Your task to perform on an android device: Open Google Chrome and open the bookmarks view Image 0: 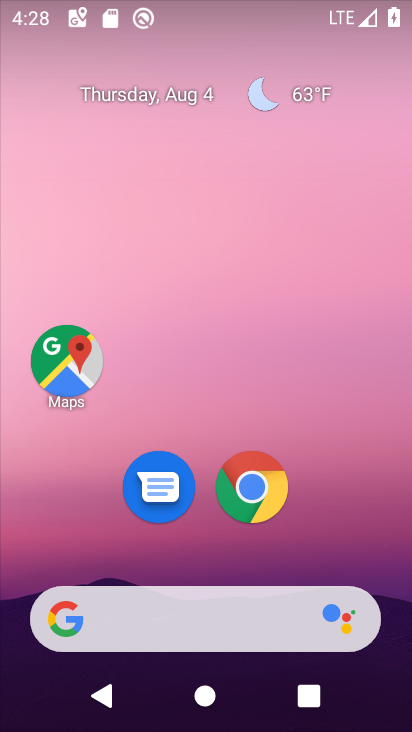
Step 0: click (201, 612)
Your task to perform on an android device: Open Google Chrome and open the bookmarks view Image 1: 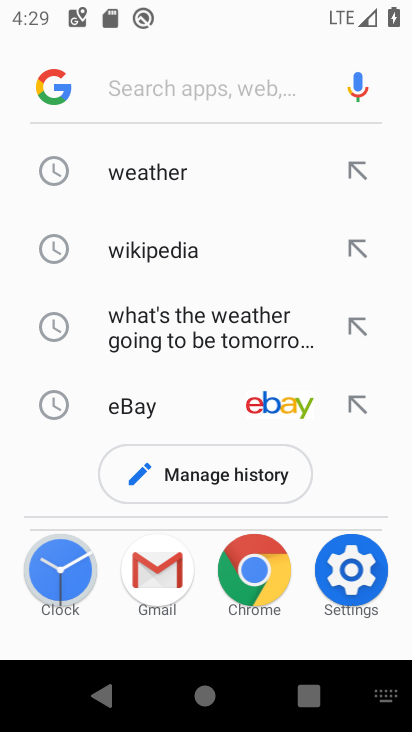
Step 1: click (144, 167)
Your task to perform on an android device: Open Google Chrome and open the bookmarks view Image 2: 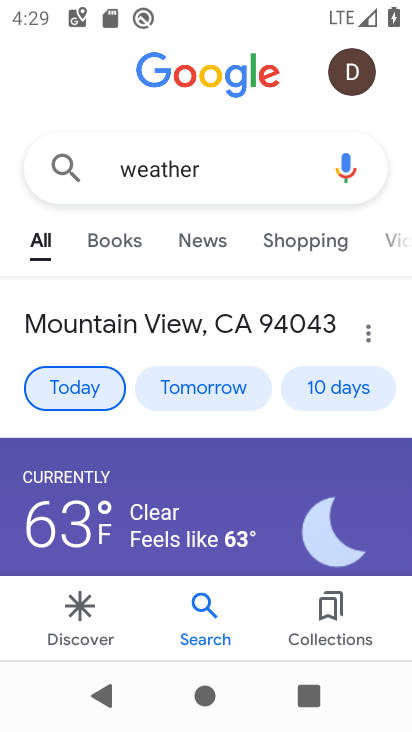
Step 2: press back button
Your task to perform on an android device: Open Google Chrome and open the bookmarks view Image 3: 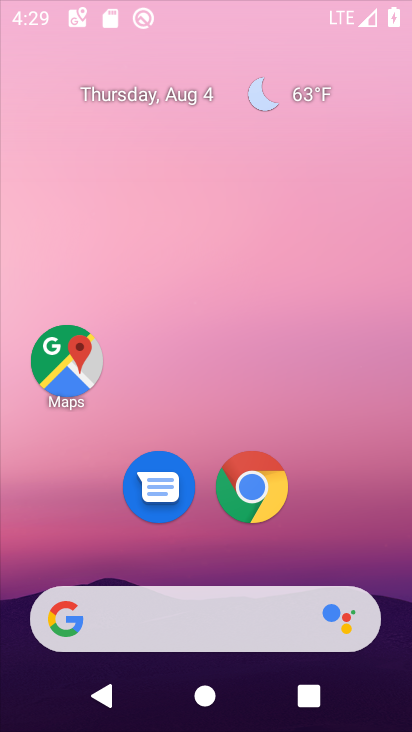
Step 3: press back button
Your task to perform on an android device: Open Google Chrome and open the bookmarks view Image 4: 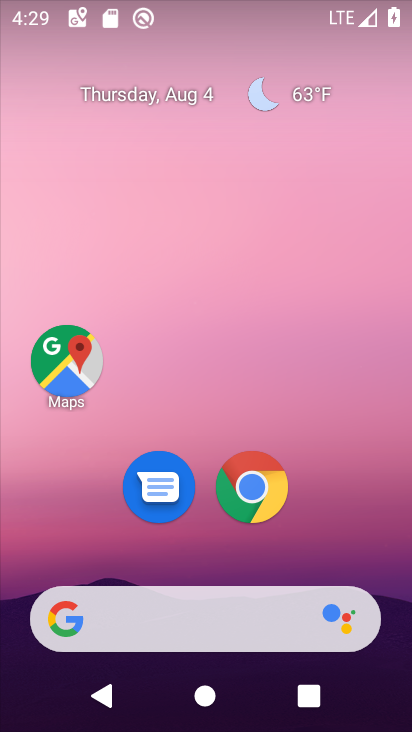
Step 4: click (267, 502)
Your task to perform on an android device: Open Google Chrome and open the bookmarks view Image 5: 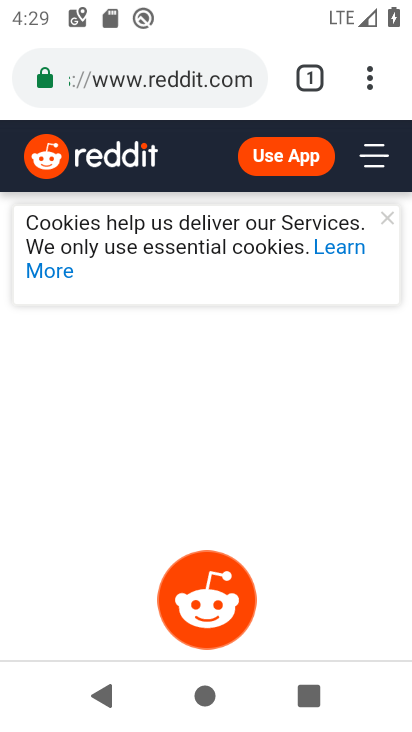
Step 5: task complete